Your task to perform on an android device: Go to settings Image 0: 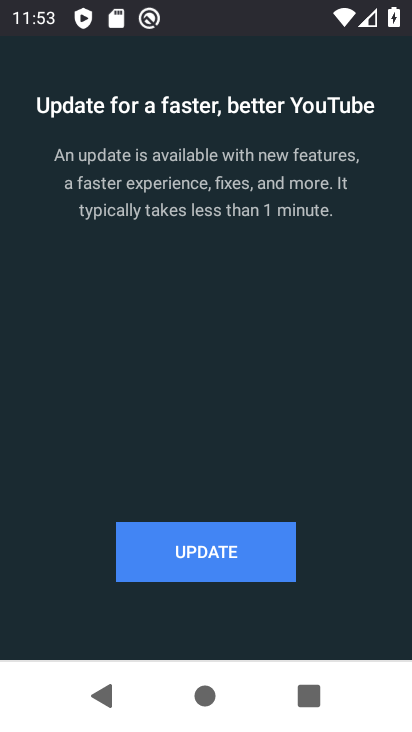
Step 0: press back button
Your task to perform on an android device: Go to settings Image 1: 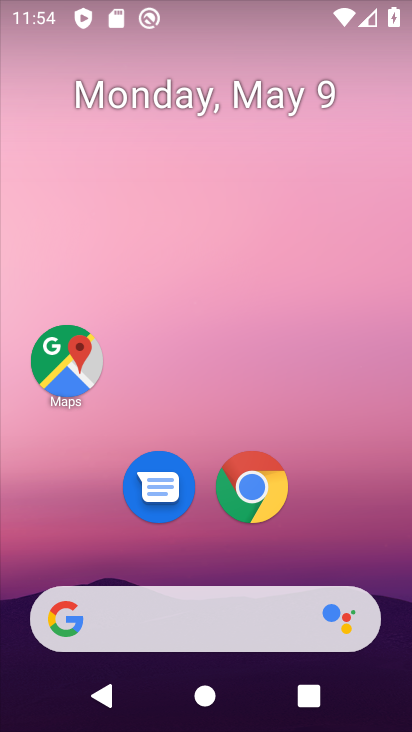
Step 1: drag from (358, 545) to (346, 181)
Your task to perform on an android device: Go to settings Image 2: 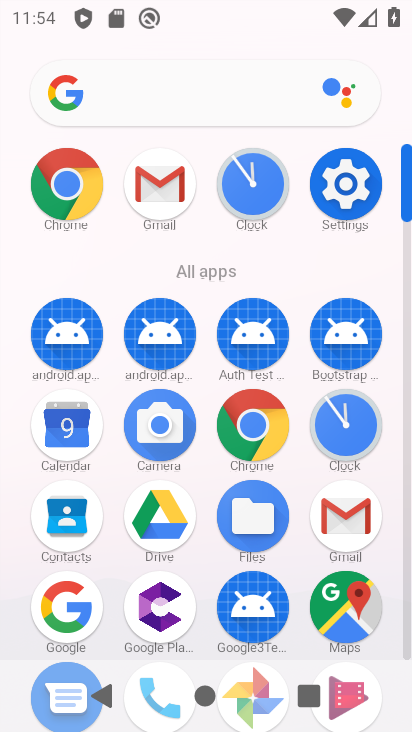
Step 2: click (341, 216)
Your task to perform on an android device: Go to settings Image 3: 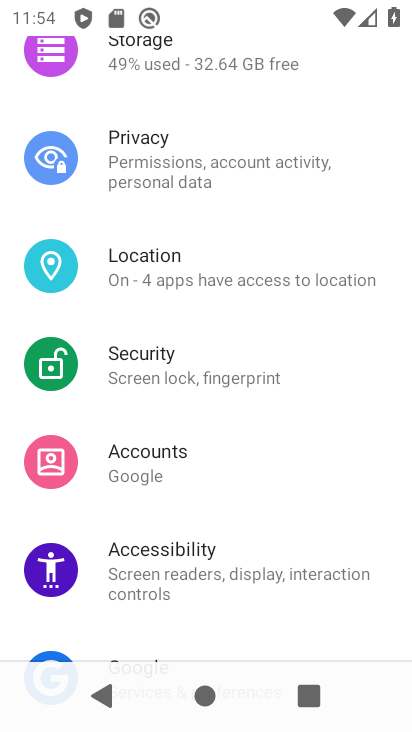
Step 3: task complete